Your task to perform on an android device: Go to privacy settings Image 0: 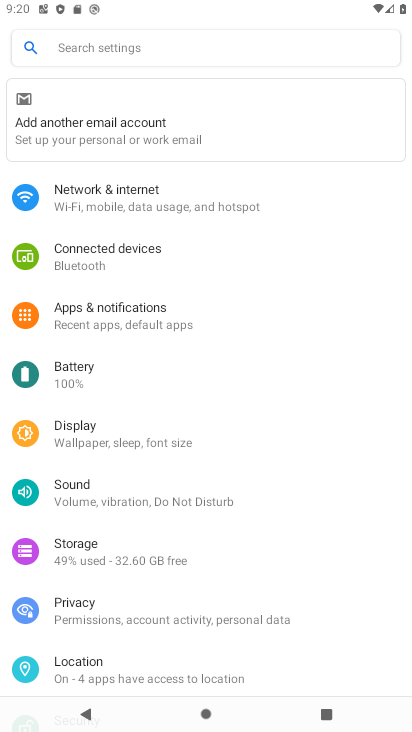
Step 0: drag from (156, 498) to (185, 243)
Your task to perform on an android device: Go to privacy settings Image 1: 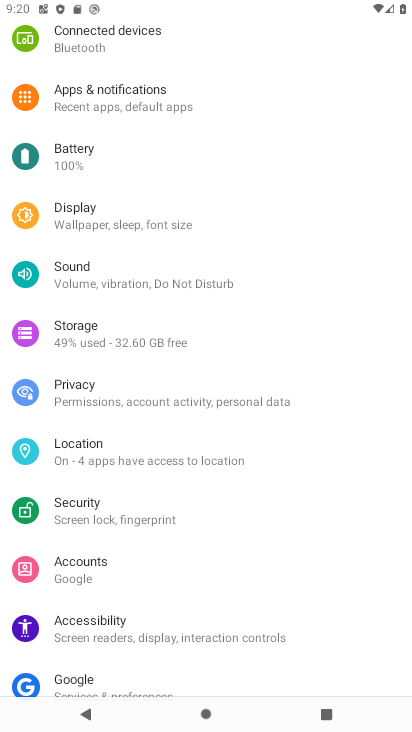
Step 1: click (77, 397)
Your task to perform on an android device: Go to privacy settings Image 2: 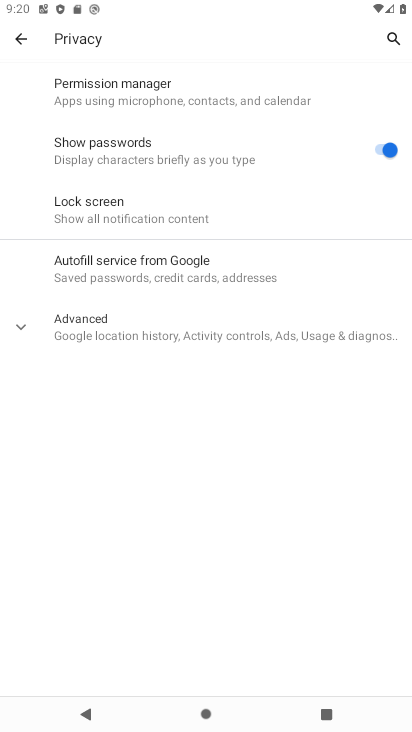
Step 2: task complete